Your task to perform on an android device: toggle airplane mode Image 0: 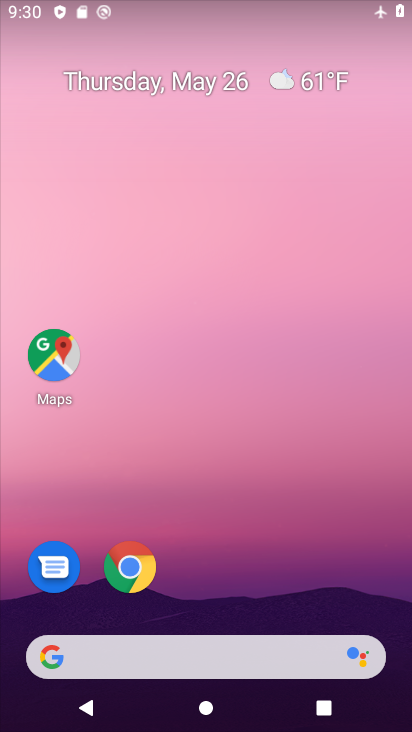
Step 0: drag from (381, 7) to (306, 527)
Your task to perform on an android device: toggle airplane mode Image 1: 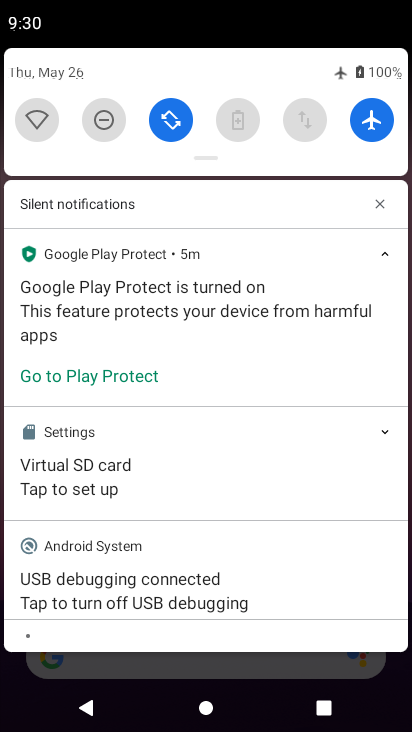
Step 1: click (375, 120)
Your task to perform on an android device: toggle airplane mode Image 2: 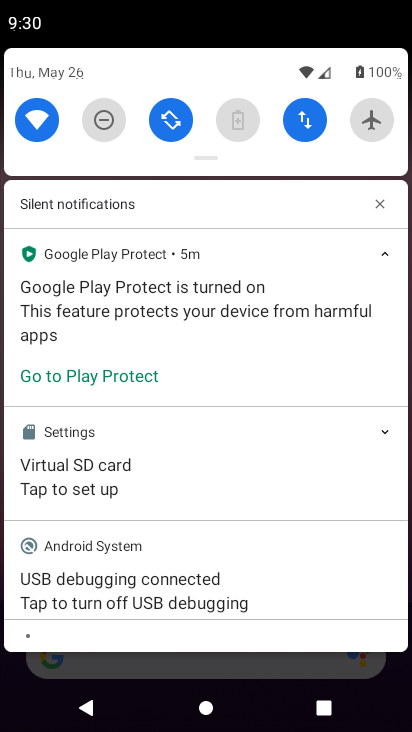
Step 2: task complete